Your task to perform on an android device: Go to location settings Image 0: 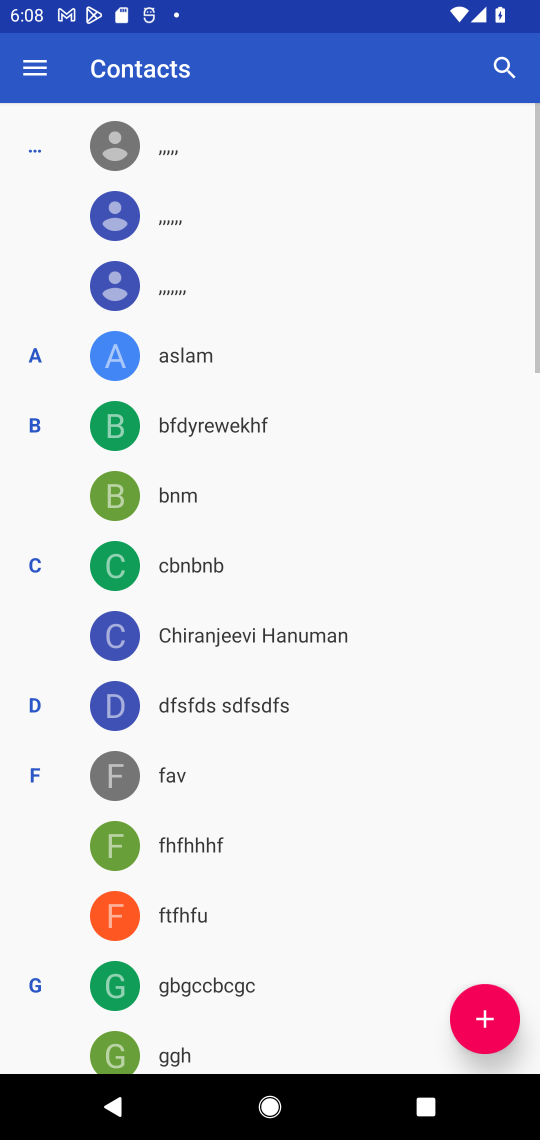
Step 0: press home button
Your task to perform on an android device: Go to location settings Image 1: 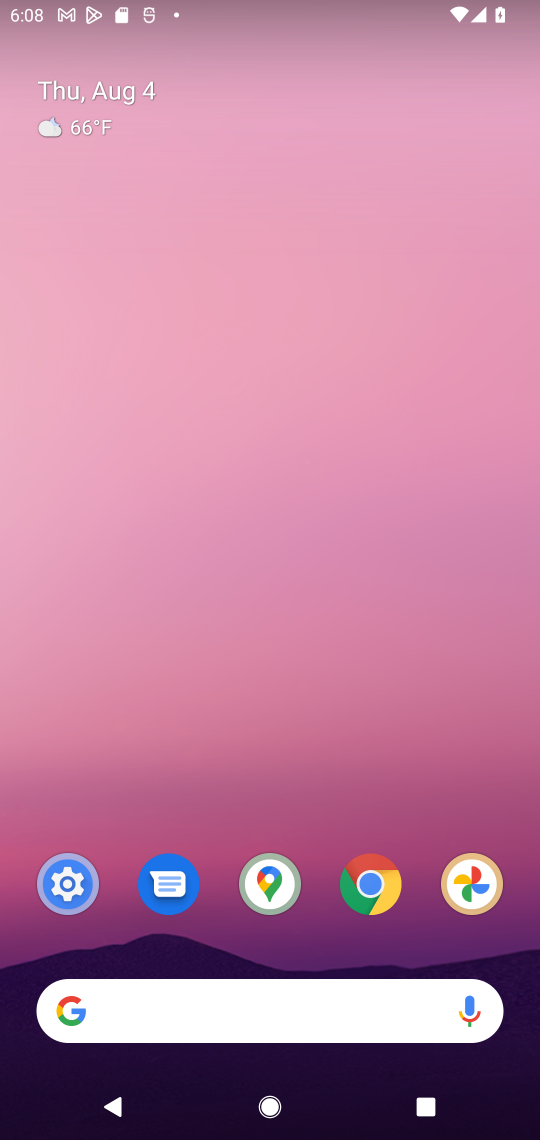
Step 1: click (88, 896)
Your task to perform on an android device: Go to location settings Image 2: 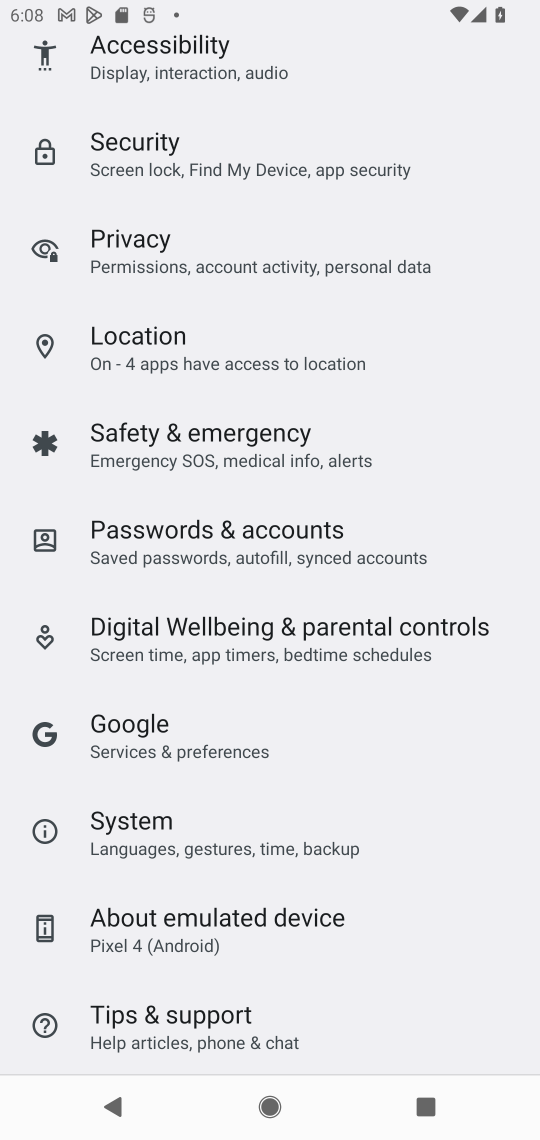
Step 2: click (237, 372)
Your task to perform on an android device: Go to location settings Image 3: 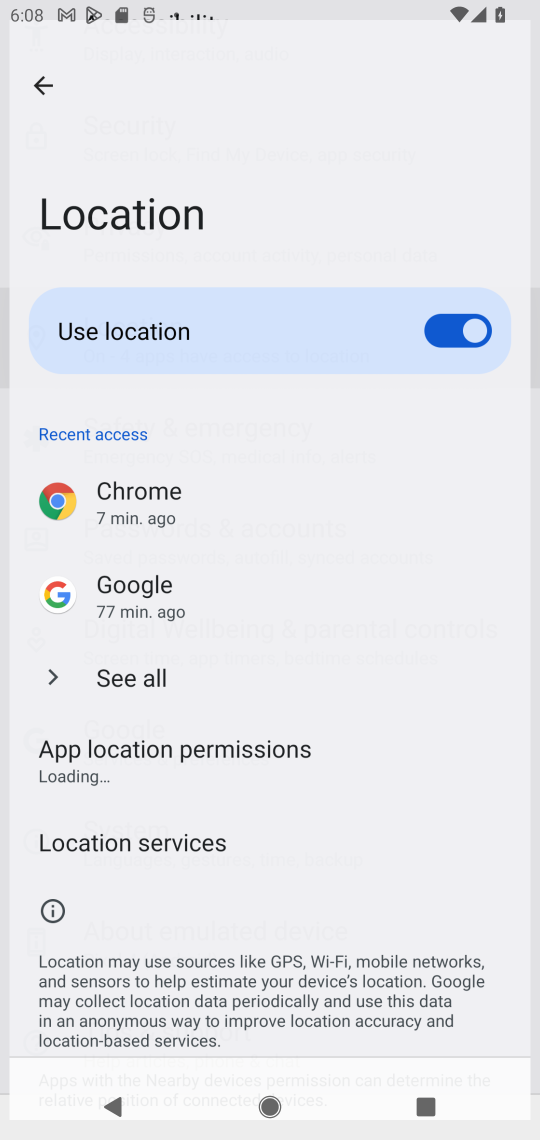
Step 3: task complete